Your task to perform on an android device: toggle show notifications on the lock screen Image 0: 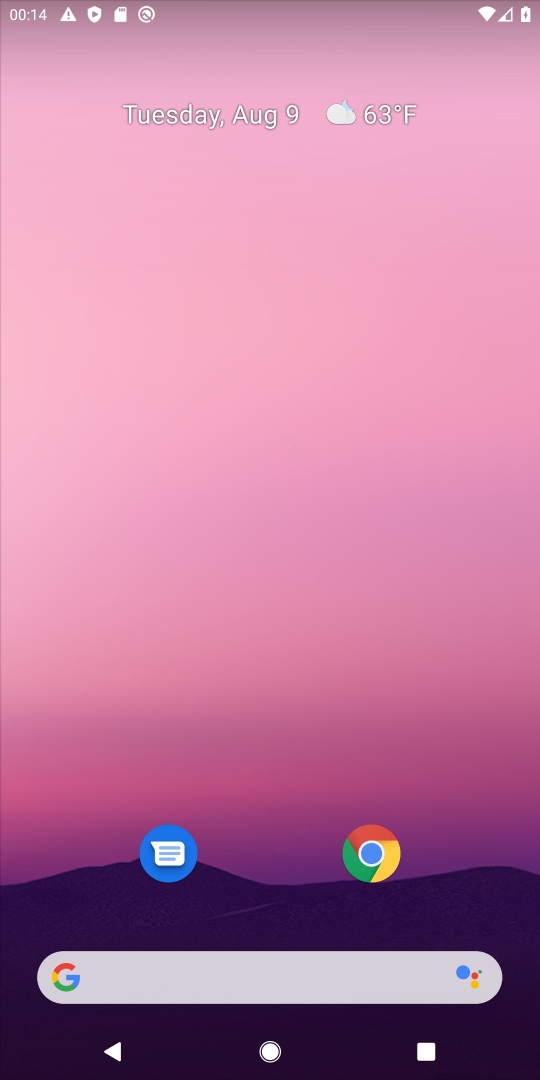
Step 0: drag from (240, 835) to (240, 89)
Your task to perform on an android device: toggle show notifications on the lock screen Image 1: 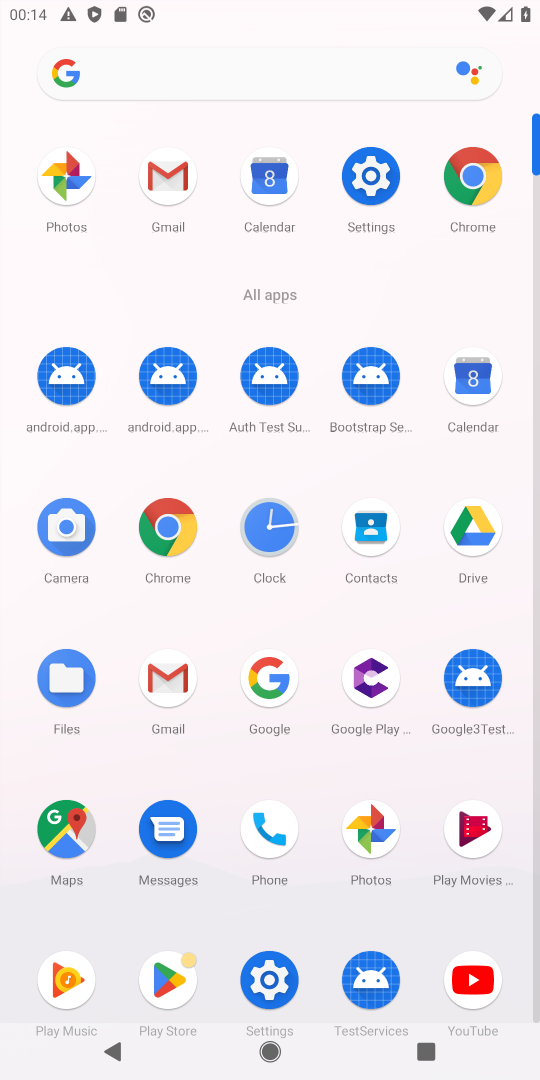
Step 1: click (379, 164)
Your task to perform on an android device: toggle show notifications on the lock screen Image 2: 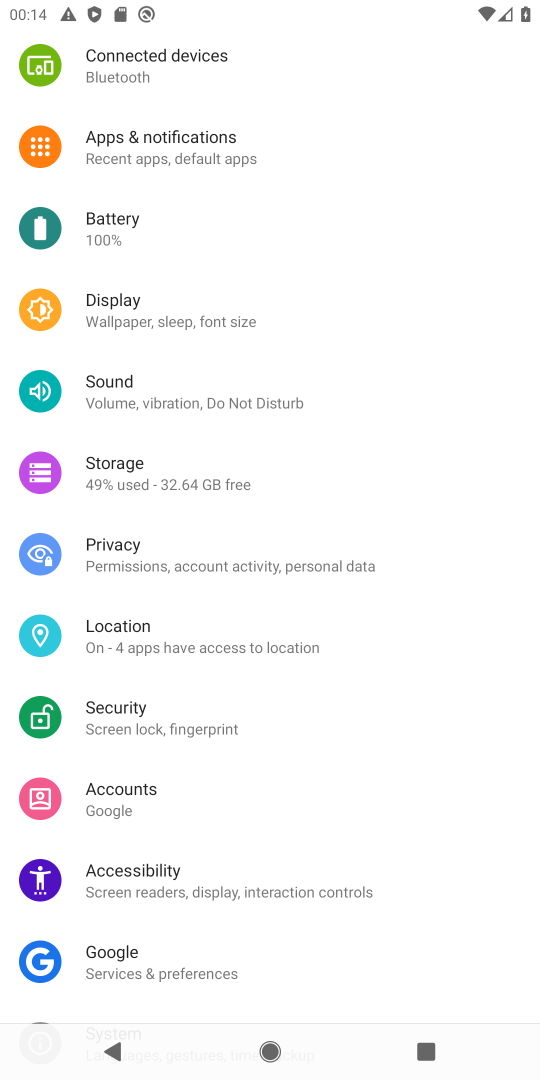
Step 2: click (165, 154)
Your task to perform on an android device: toggle show notifications on the lock screen Image 3: 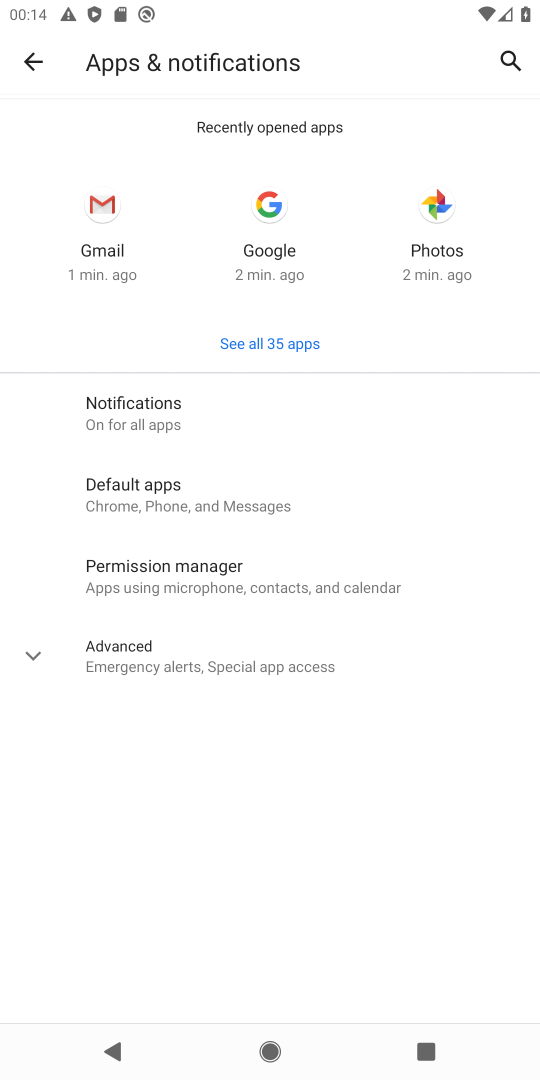
Step 3: click (183, 405)
Your task to perform on an android device: toggle show notifications on the lock screen Image 4: 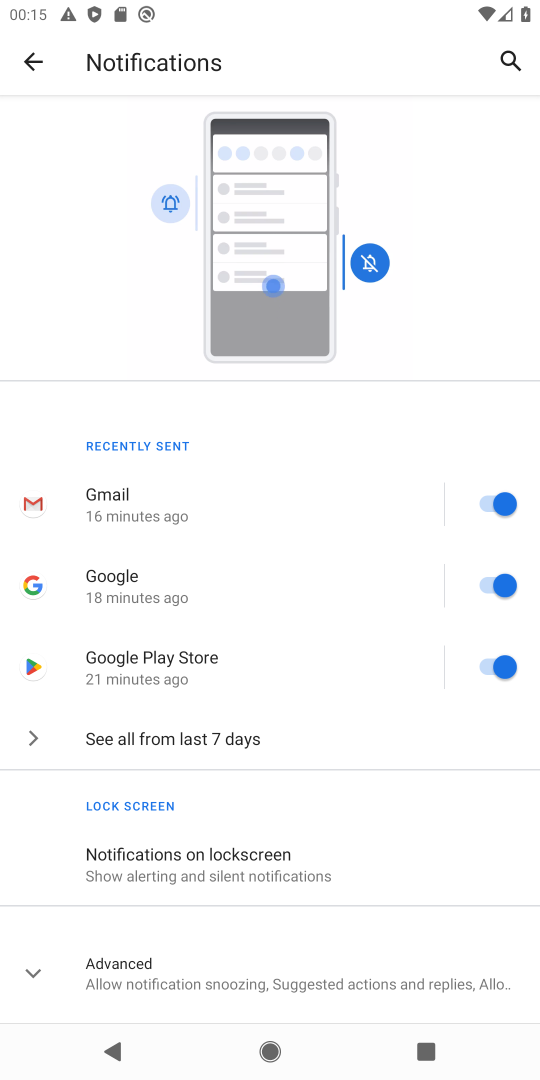
Step 4: click (214, 853)
Your task to perform on an android device: toggle show notifications on the lock screen Image 5: 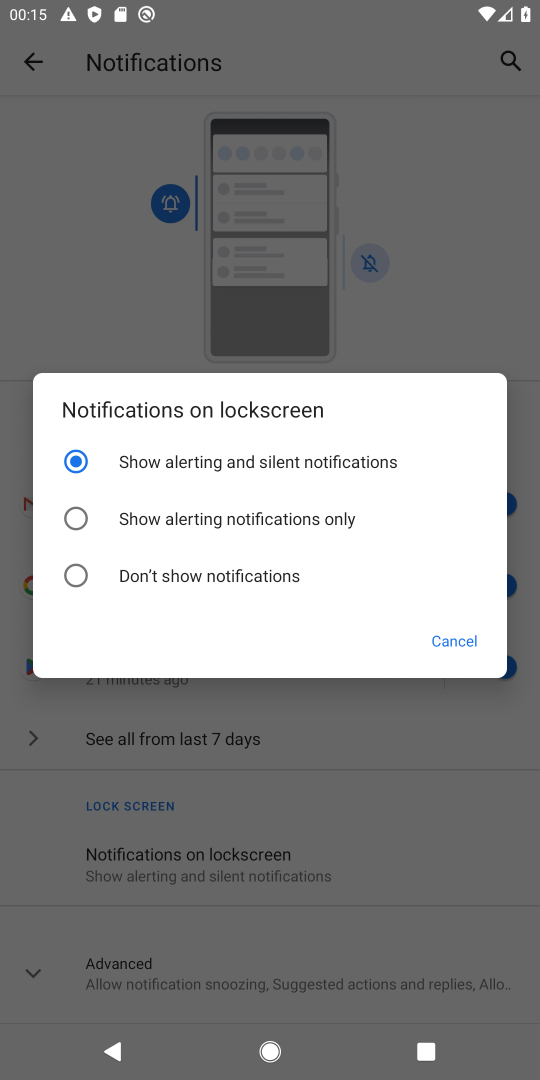
Step 5: click (194, 525)
Your task to perform on an android device: toggle show notifications on the lock screen Image 6: 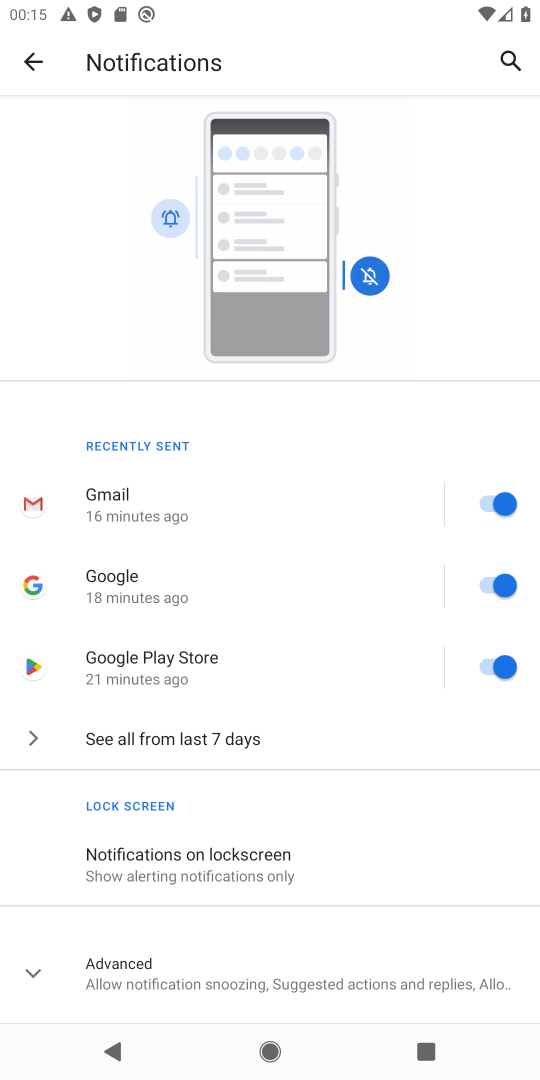
Step 6: task complete